Your task to perform on an android device: allow cookies in the chrome app Image 0: 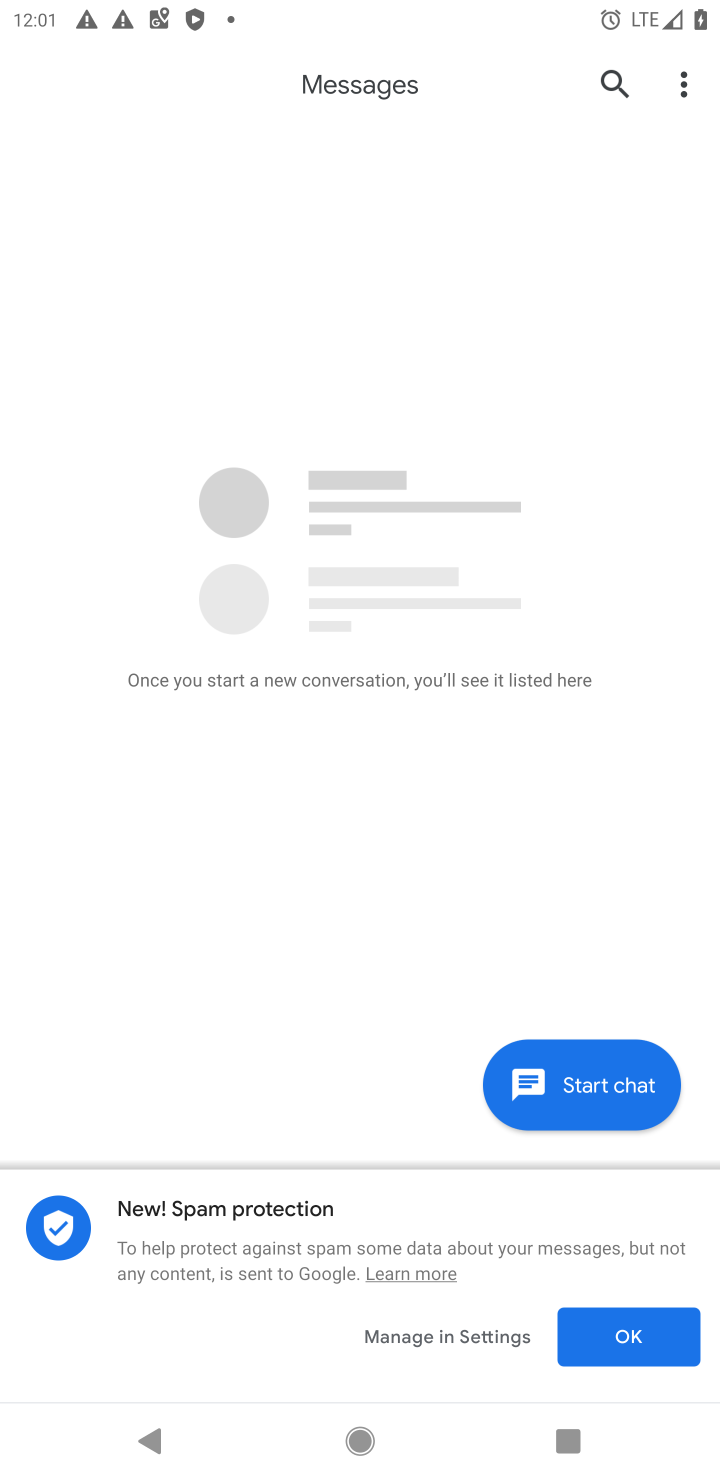
Step 0: press home button
Your task to perform on an android device: allow cookies in the chrome app Image 1: 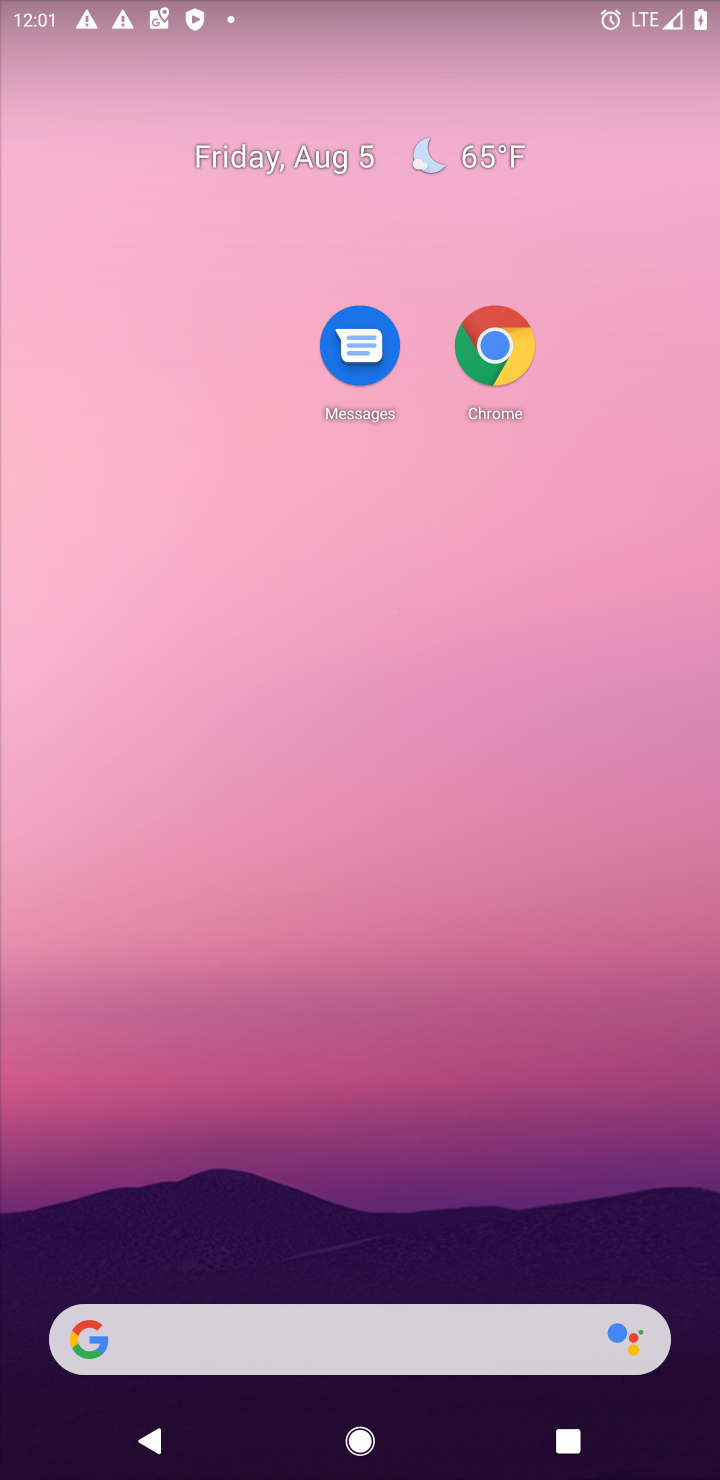
Step 1: drag from (450, 1065) to (319, 0)
Your task to perform on an android device: allow cookies in the chrome app Image 2: 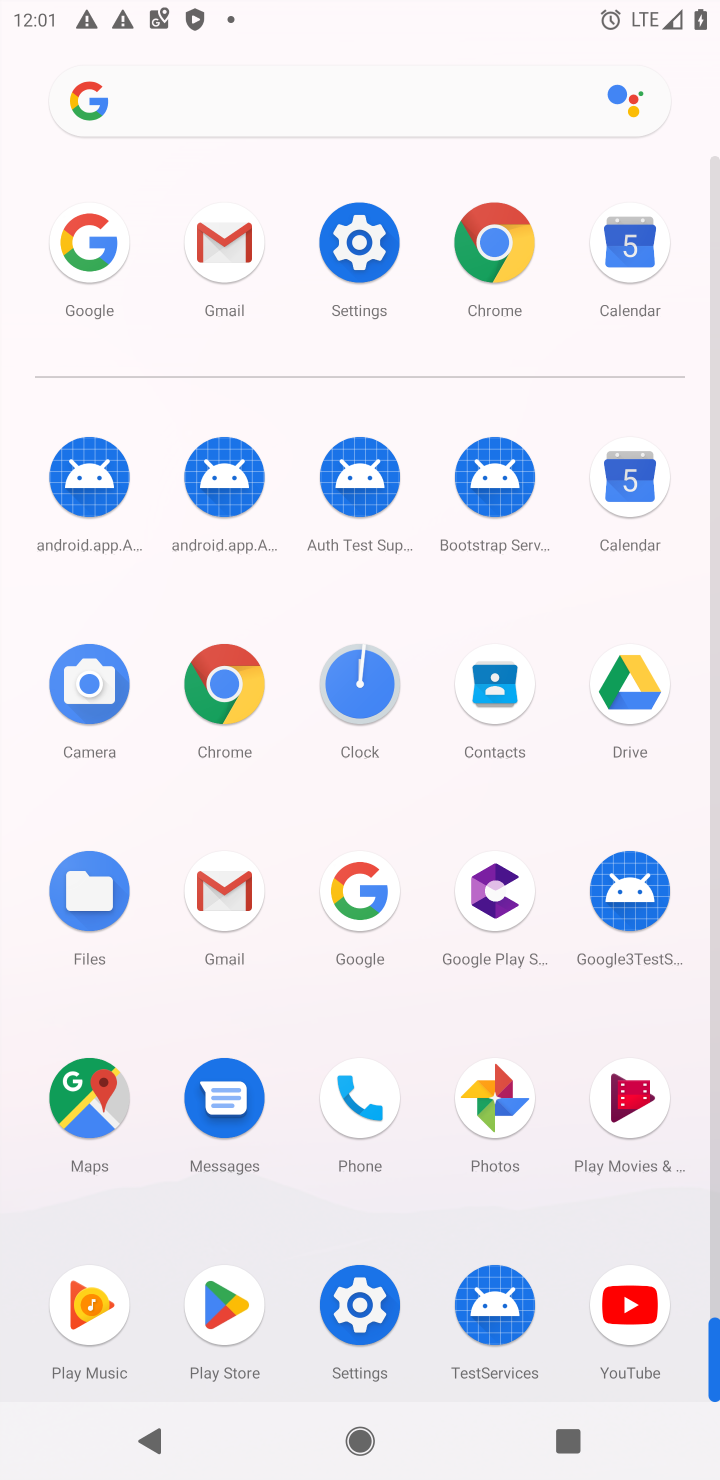
Step 2: click (521, 256)
Your task to perform on an android device: allow cookies in the chrome app Image 3: 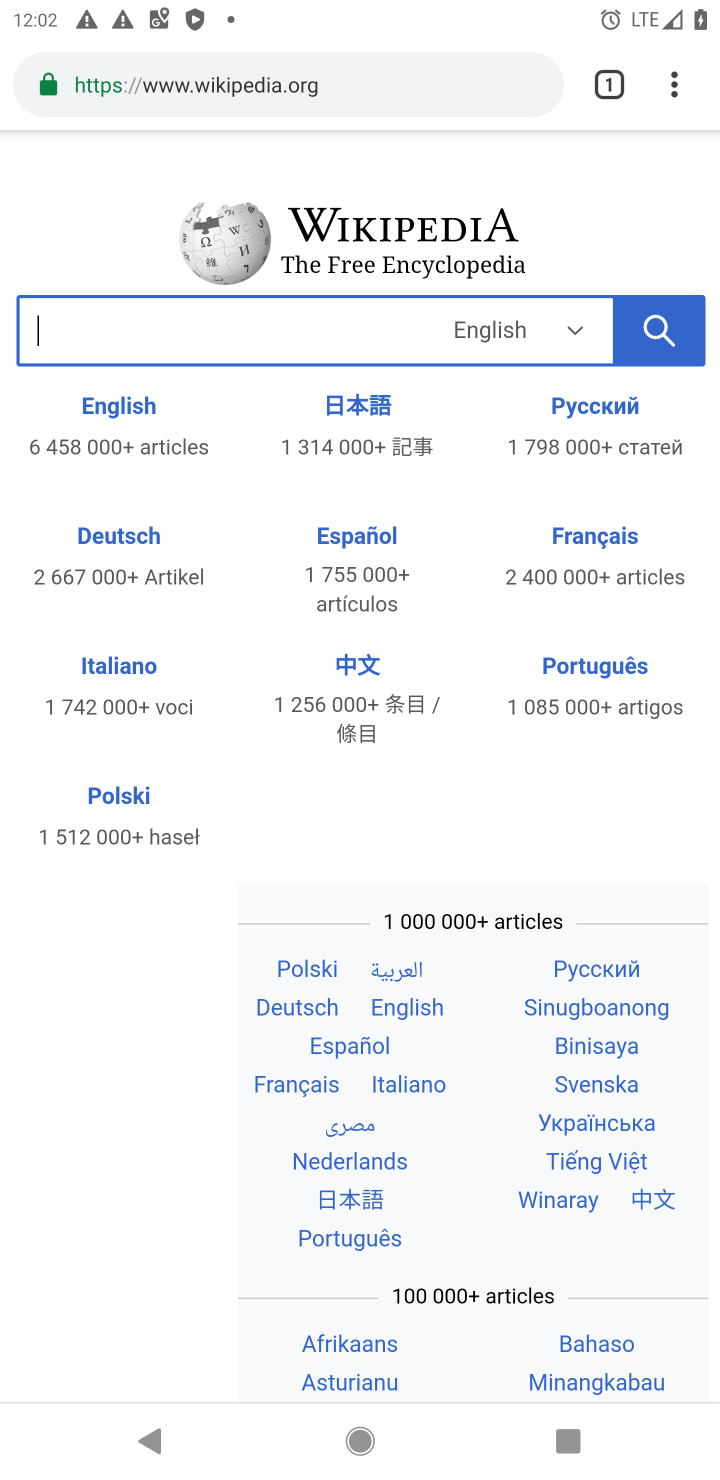
Step 3: drag from (676, 87) to (344, 934)
Your task to perform on an android device: allow cookies in the chrome app Image 4: 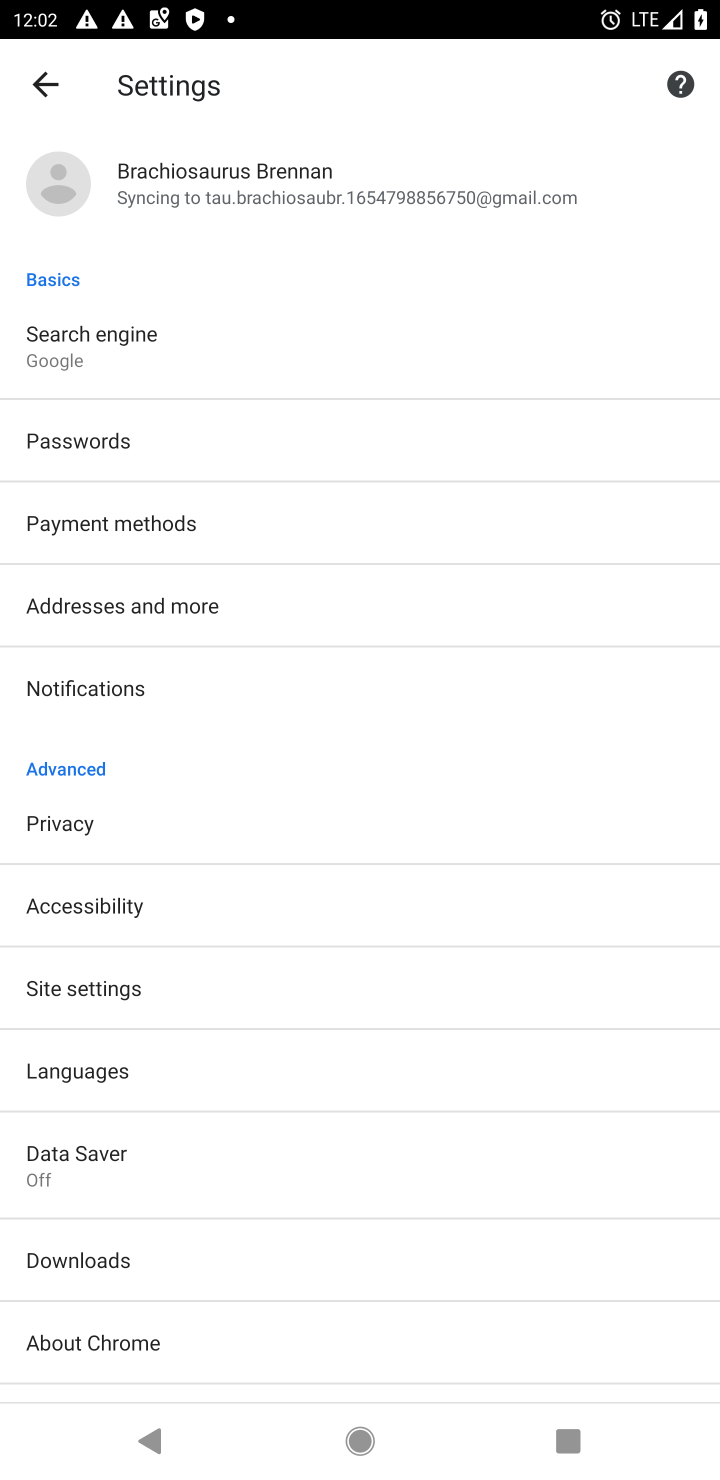
Step 4: click (144, 986)
Your task to perform on an android device: allow cookies in the chrome app Image 5: 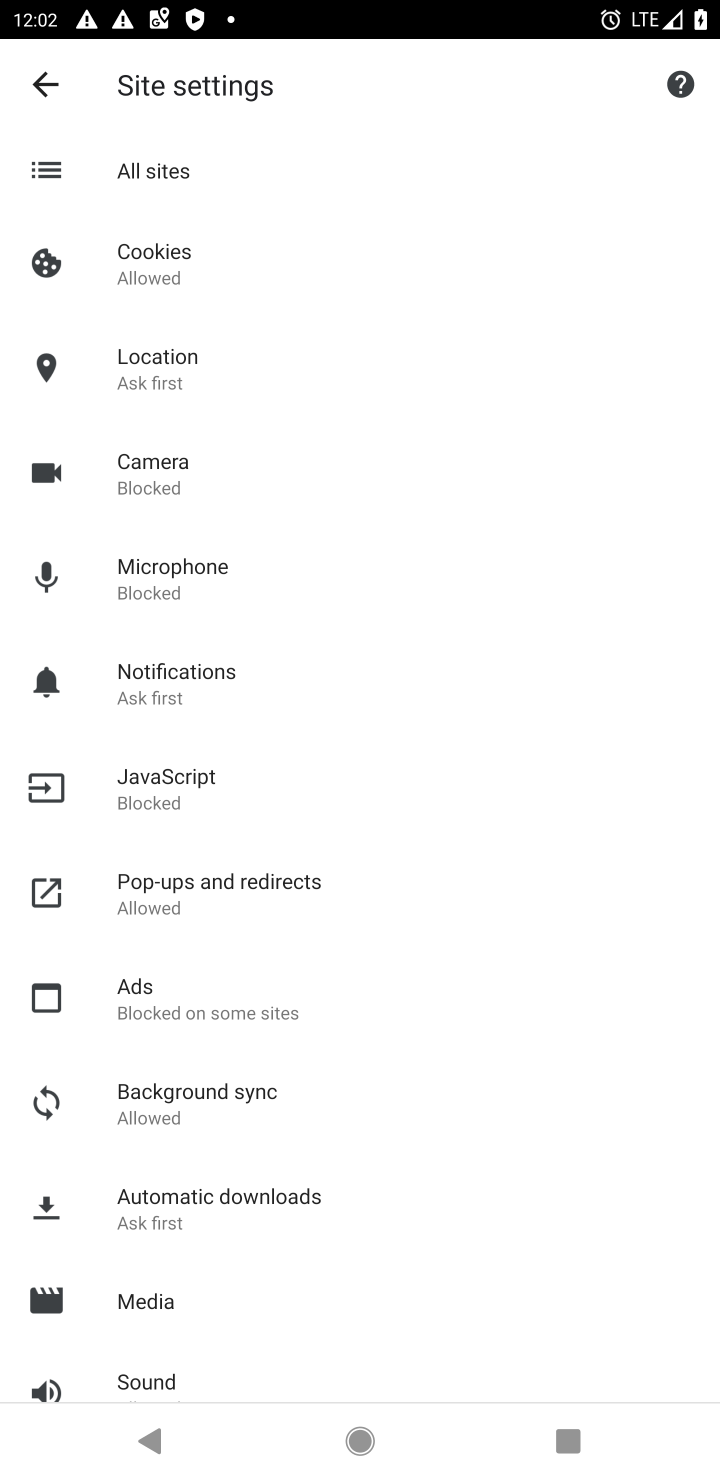
Step 5: click (160, 248)
Your task to perform on an android device: allow cookies in the chrome app Image 6: 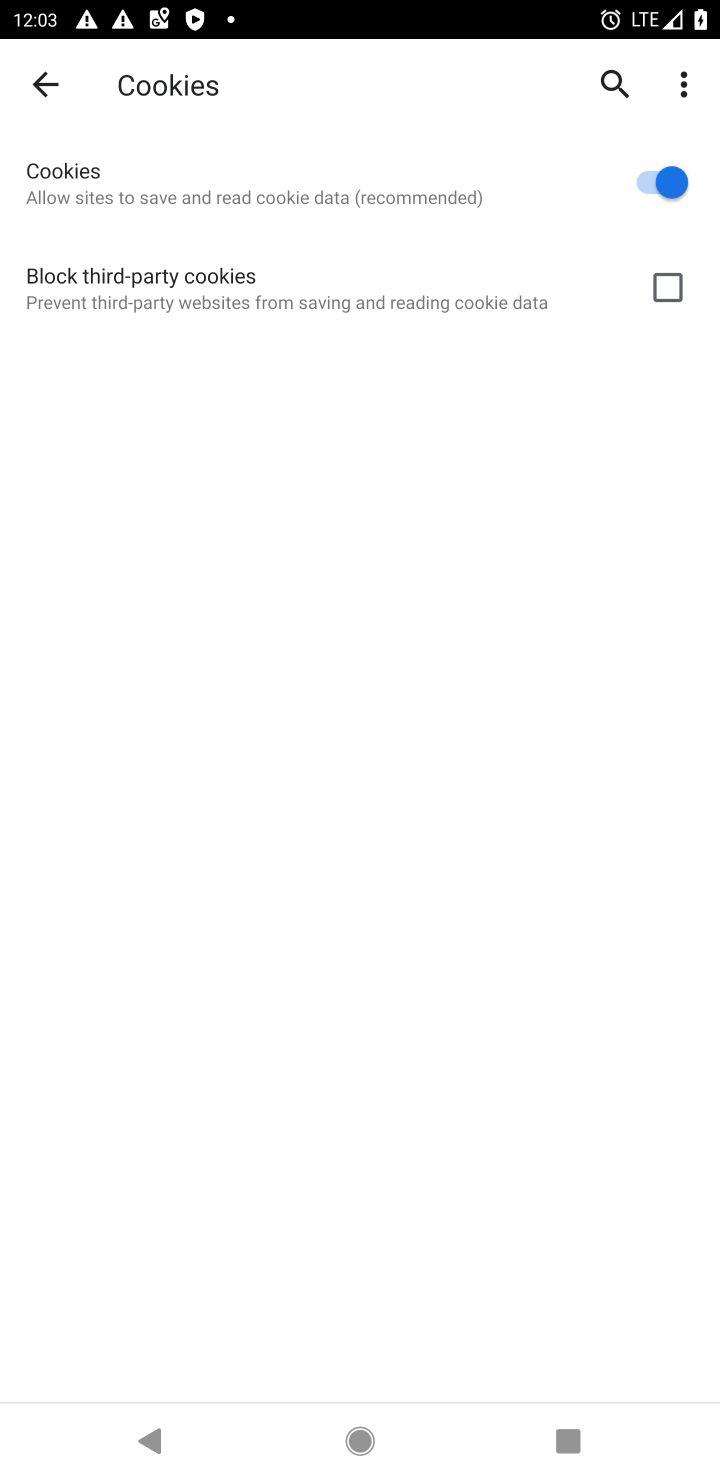
Step 6: task complete